Your task to perform on an android device: View the shopping cart on newegg.com. Add "usb-a to usb-b" to the cart on newegg.com, then select checkout. Image 0: 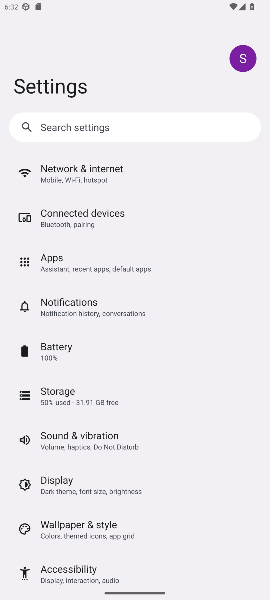
Step 0: press home button
Your task to perform on an android device: View the shopping cart on newegg.com. Add "usb-a to usb-b" to the cart on newegg.com, then select checkout. Image 1: 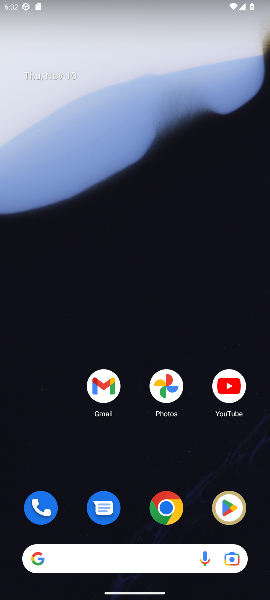
Step 1: click (170, 502)
Your task to perform on an android device: View the shopping cart on newegg.com. Add "usb-a to usb-b" to the cart on newegg.com, then select checkout. Image 2: 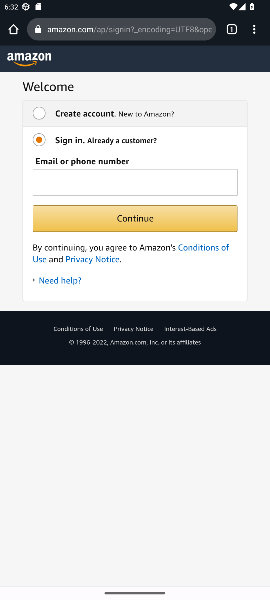
Step 2: click (167, 35)
Your task to perform on an android device: View the shopping cart on newegg.com. Add "usb-a to usb-b" to the cart on newegg.com, then select checkout. Image 3: 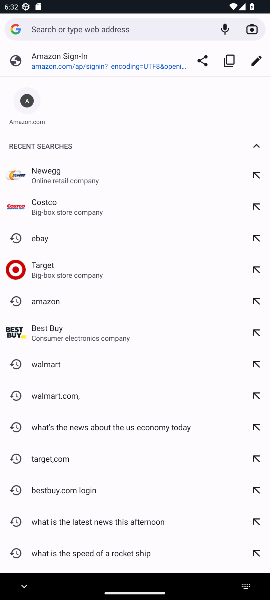
Step 3: click (43, 172)
Your task to perform on an android device: View the shopping cart on newegg.com. Add "usb-a to usb-b" to the cart on newegg.com, then select checkout. Image 4: 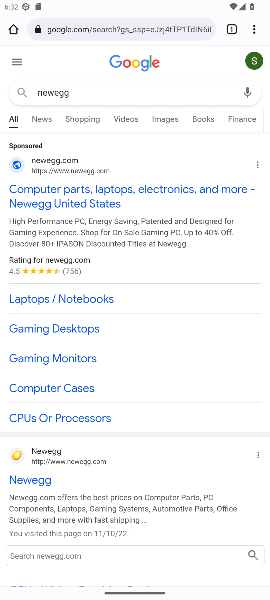
Step 4: click (37, 481)
Your task to perform on an android device: View the shopping cart on newegg.com. Add "usb-a to usb-b" to the cart on newegg.com, then select checkout. Image 5: 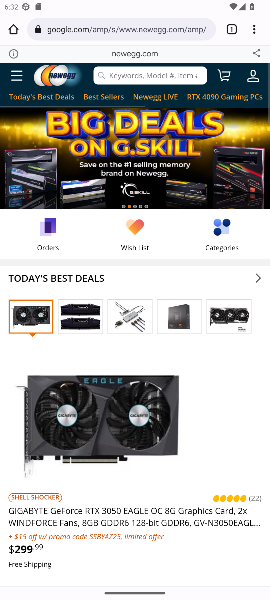
Step 5: click (182, 74)
Your task to perform on an android device: View the shopping cart on newegg.com. Add "usb-a to usb-b" to the cart on newegg.com, then select checkout. Image 6: 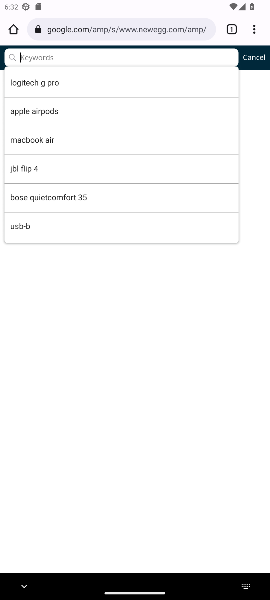
Step 6: type "usb-a to usb-b"
Your task to perform on an android device: View the shopping cart on newegg.com. Add "usb-a to usb-b" to the cart on newegg.com, then select checkout. Image 7: 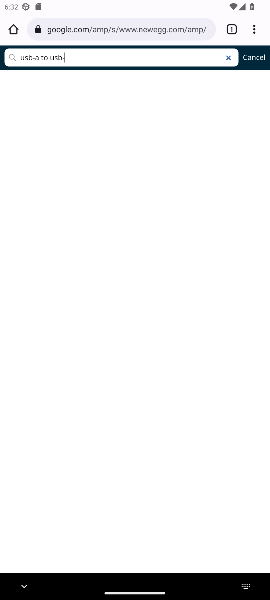
Step 7: press enter
Your task to perform on an android device: View the shopping cart on newegg.com. Add "usb-a to usb-b" to the cart on newegg.com, then select checkout. Image 8: 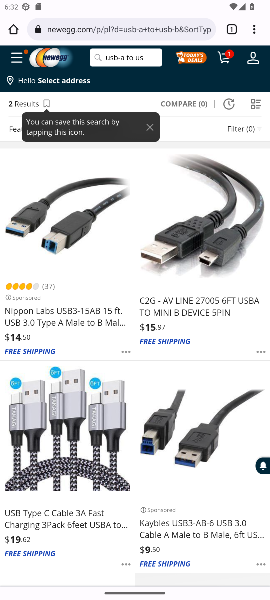
Step 8: click (83, 314)
Your task to perform on an android device: View the shopping cart on newegg.com. Add "usb-a to usb-b" to the cart on newegg.com, then select checkout. Image 9: 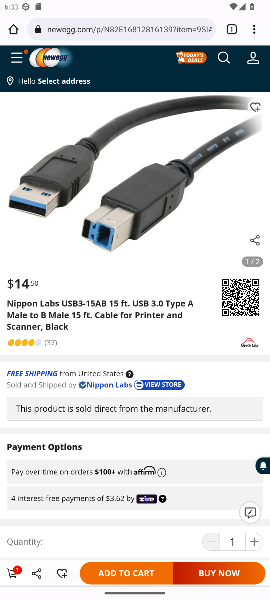
Step 9: task complete